Your task to perform on an android device: Open Google Chrome and click the shortcut for Amazon.com Image 0: 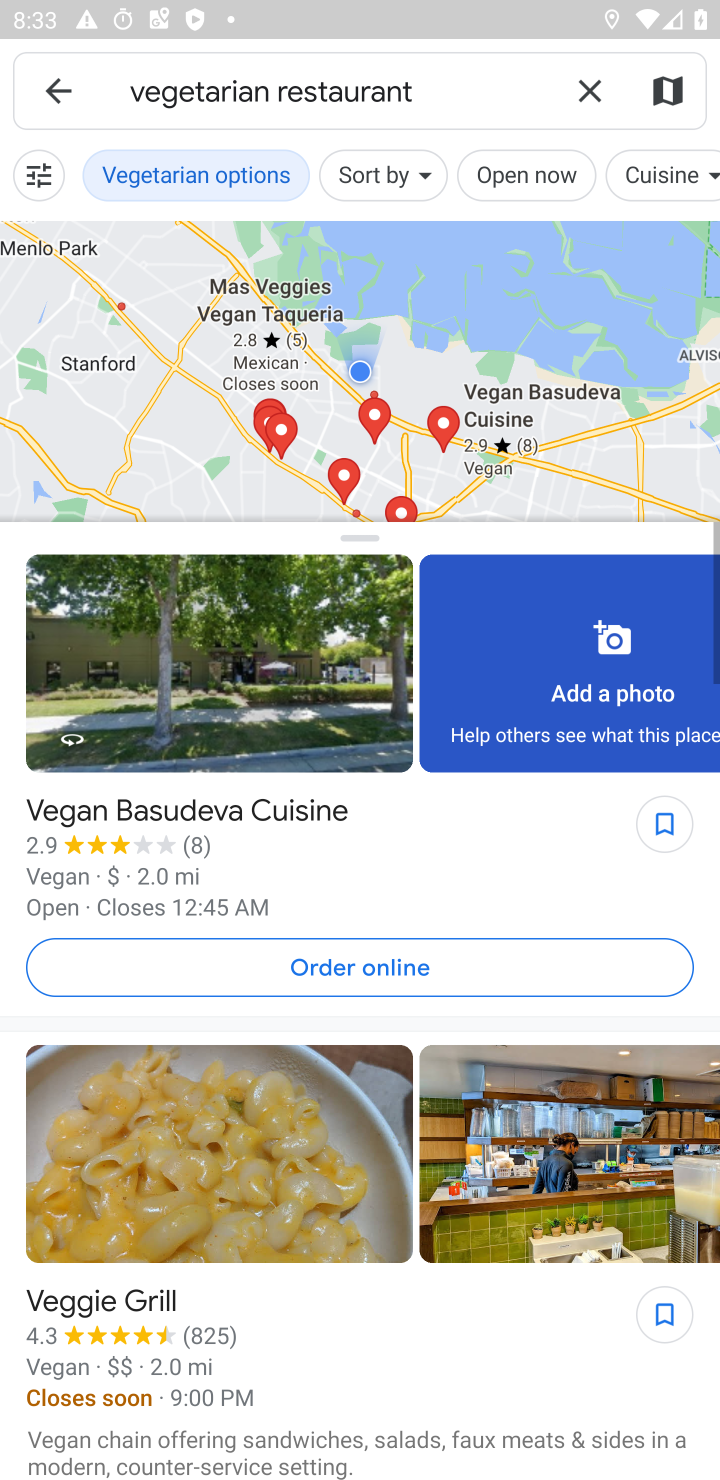
Step 0: press home button
Your task to perform on an android device: Open Google Chrome and click the shortcut for Amazon.com Image 1: 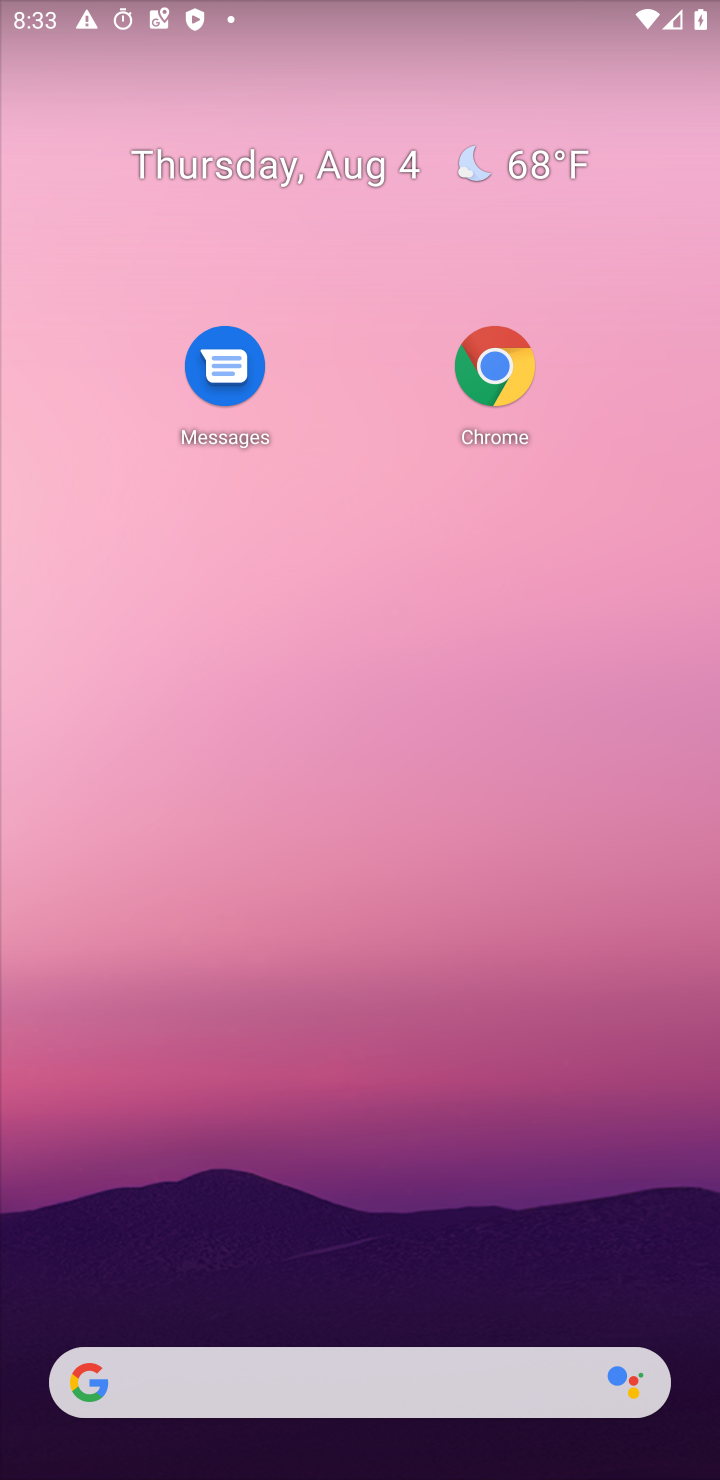
Step 1: drag from (369, 1394) to (445, 404)
Your task to perform on an android device: Open Google Chrome and click the shortcut for Amazon.com Image 2: 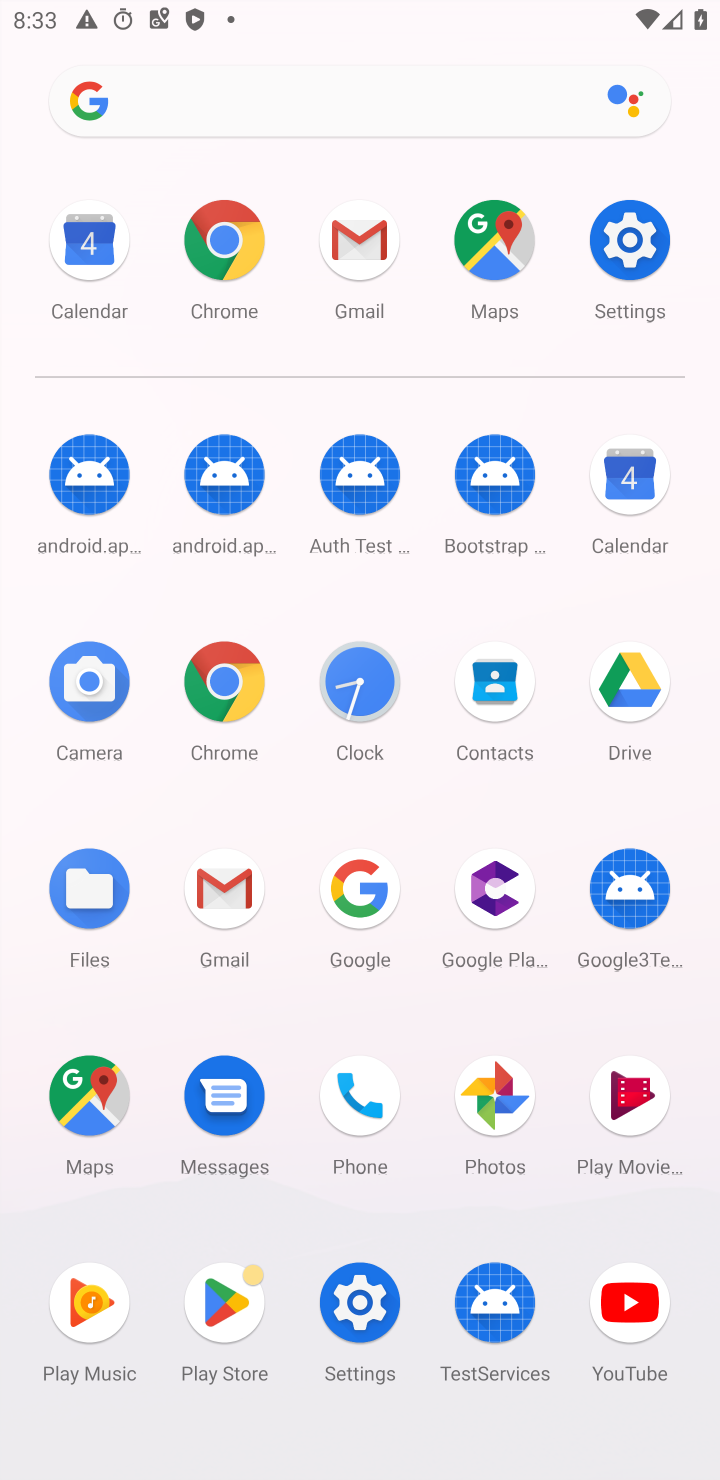
Step 2: click (196, 257)
Your task to perform on an android device: Open Google Chrome and click the shortcut for Amazon.com Image 3: 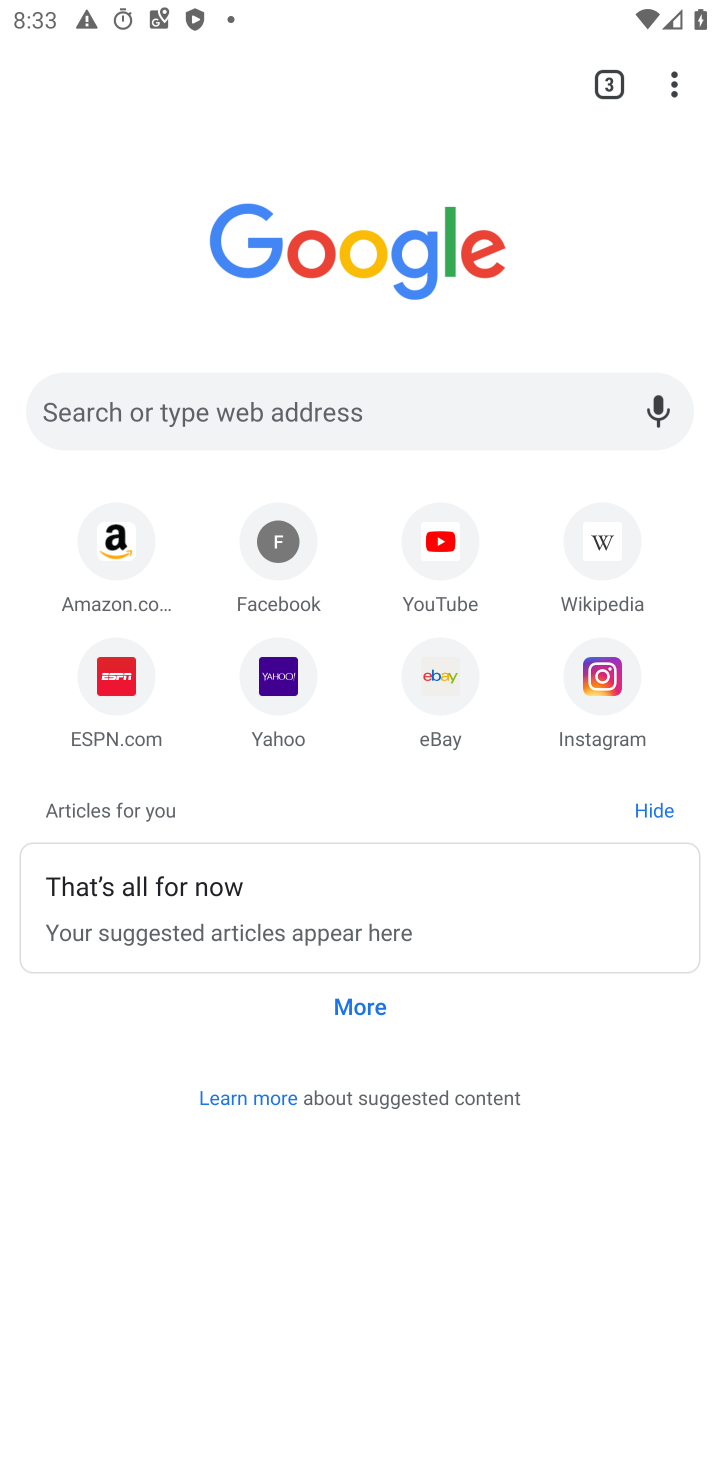
Step 3: click (122, 550)
Your task to perform on an android device: Open Google Chrome and click the shortcut for Amazon.com Image 4: 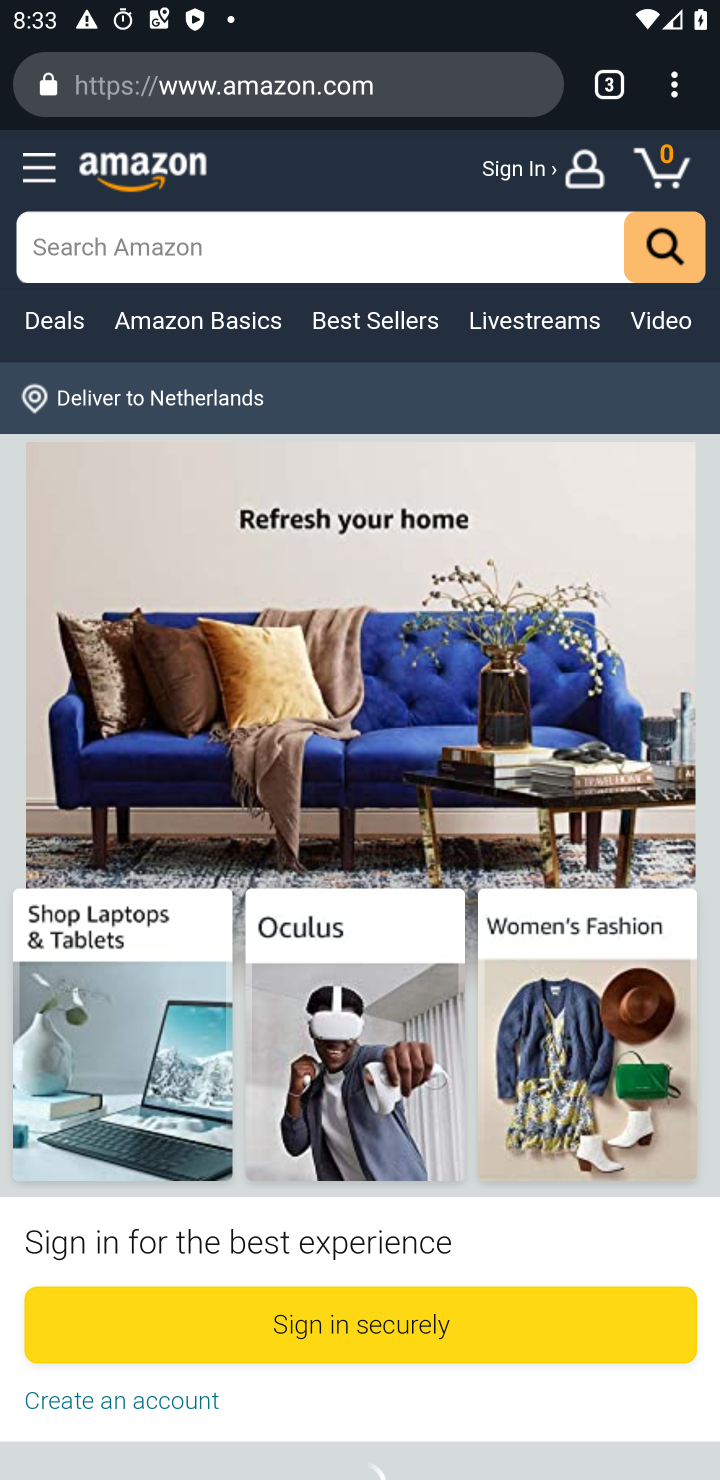
Step 4: click (681, 106)
Your task to perform on an android device: Open Google Chrome and click the shortcut for Amazon.com Image 5: 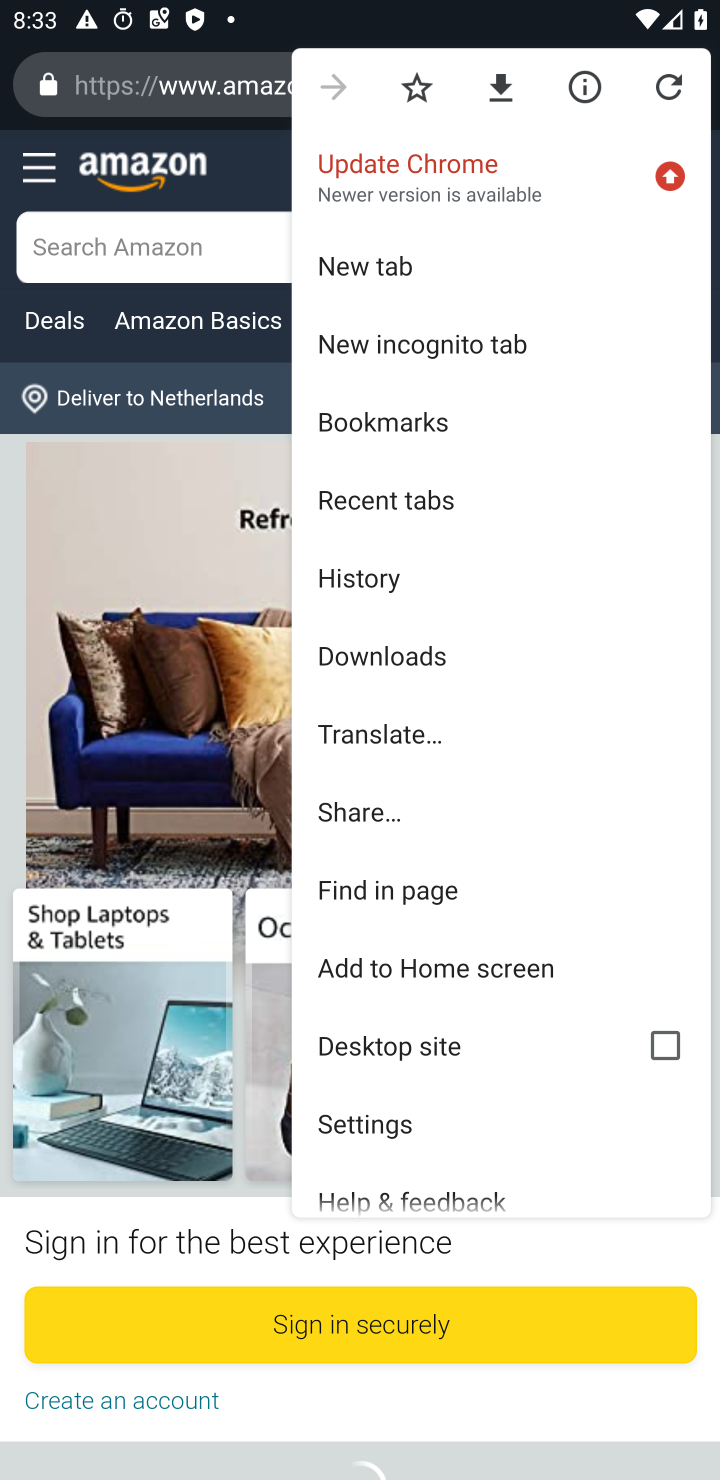
Step 5: click (467, 973)
Your task to perform on an android device: Open Google Chrome and click the shortcut for Amazon.com Image 6: 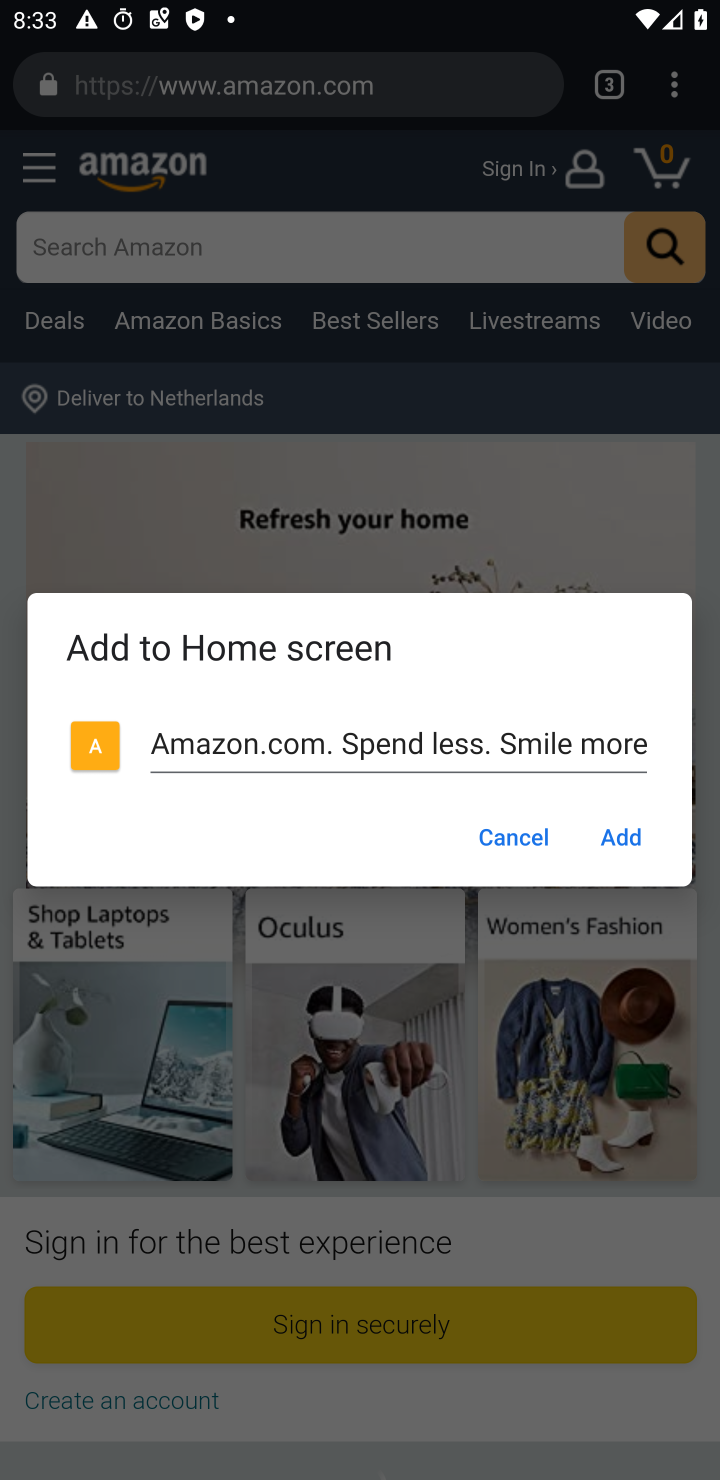
Step 6: click (635, 831)
Your task to perform on an android device: Open Google Chrome and click the shortcut for Amazon.com Image 7: 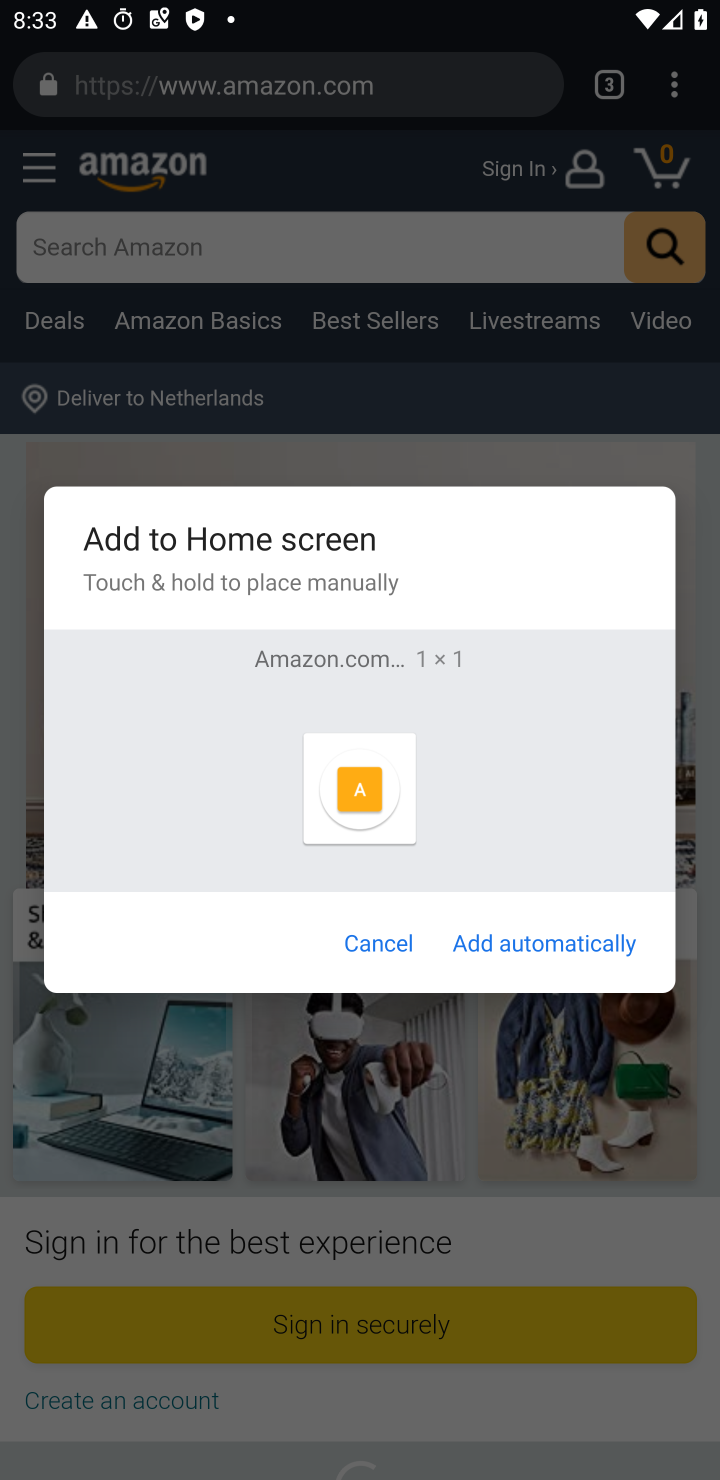
Step 7: click (571, 954)
Your task to perform on an android device: Open Google Chrome and click the shortcut for Amazon.com Image 8: 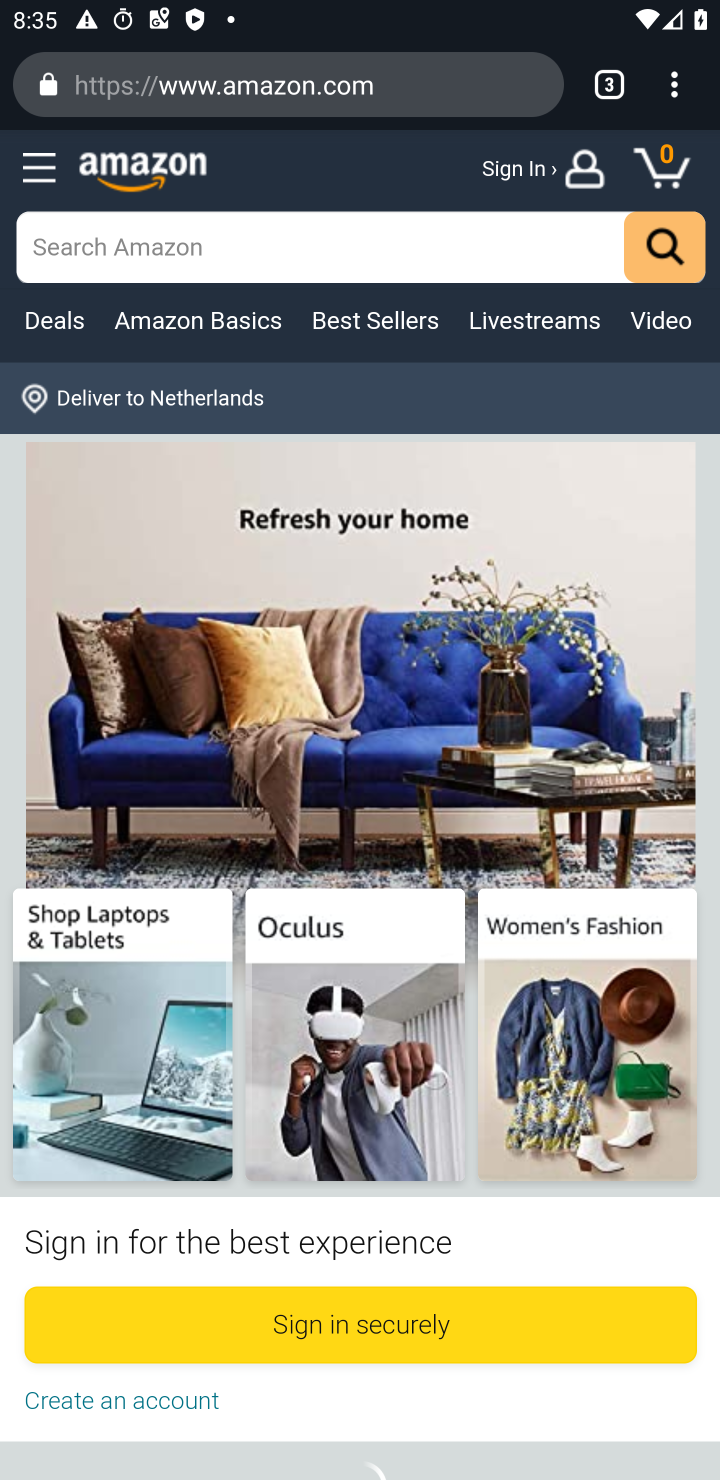
Step 8: task complete